Your task to perform on an android device: Go to Android settings Image 0: 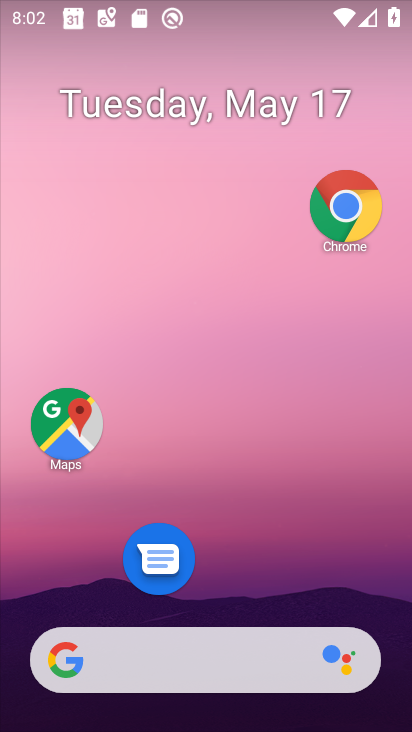
Step 0: drag from (282, 489) to (329, 120)
Your task to perform on an android device: Go to Android settings Image 1: 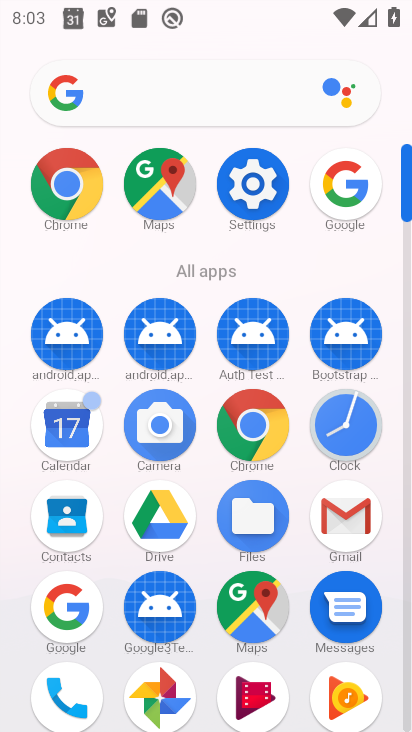
Step 1: click (269, 201)
Your task to perform on an android device: Go to Android settings Image 2: 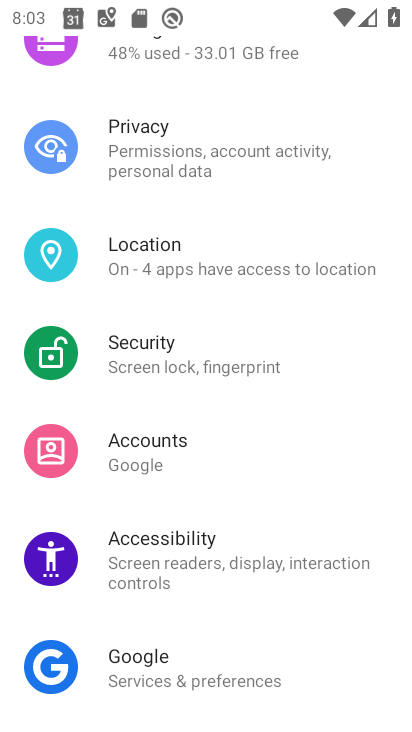
Step 2: drag from (303, 544) to (347, 165)
Your task to perform on an android device: Go to Android settings Image 3: 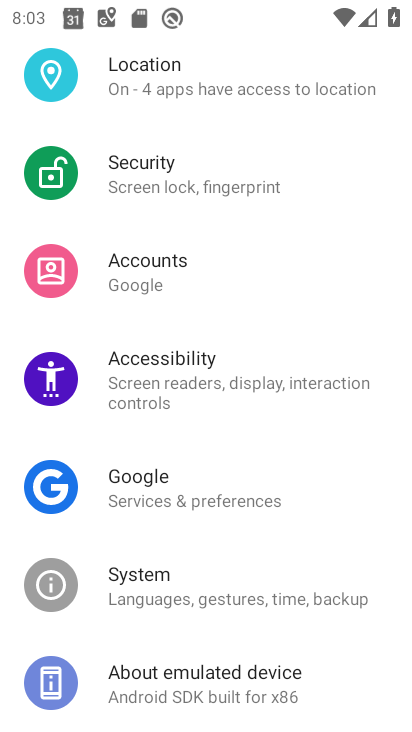
Step 3: drag from (292, 427) to (327, 44)
Your task to perform on an android device: Go to Android settings Image 4: 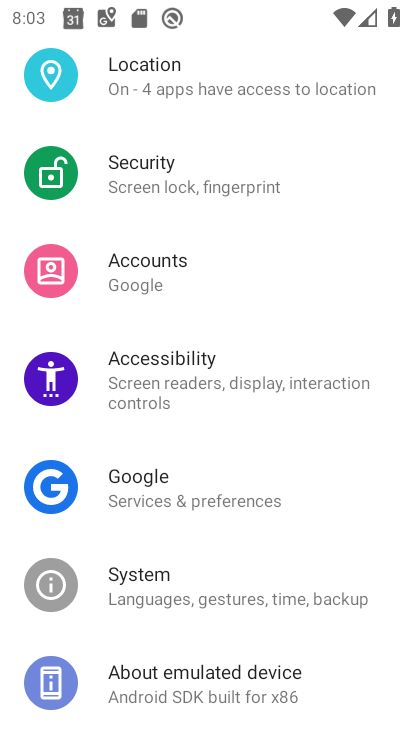
Step 4: click (244, 681)
Your task to perform on an android device: Go to Android settings Image 5: 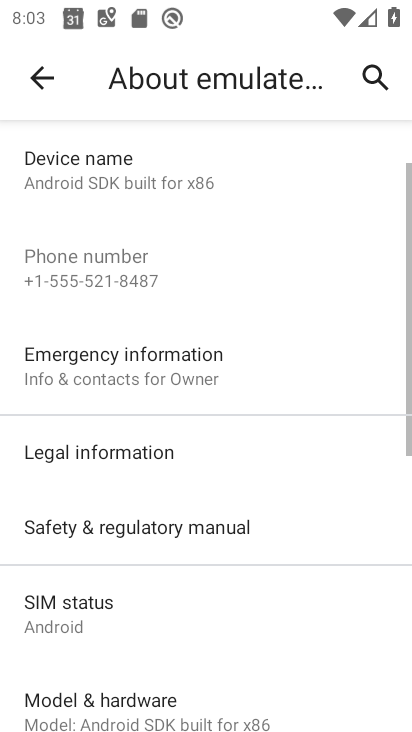
Step 5: drag from (252, 444) to (276, 307)
Your task to perform on an android device: Go to Android settings Image 6: 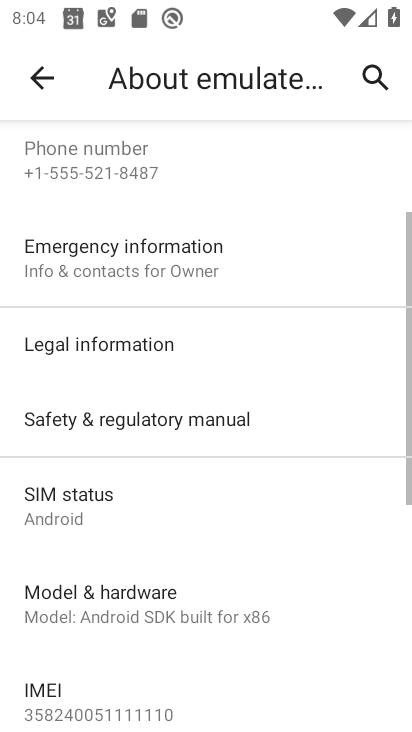
Step 6: drag from (178, 530) to (319, 16)
Your task to perform on an android device: Go to Android settings Image 7: 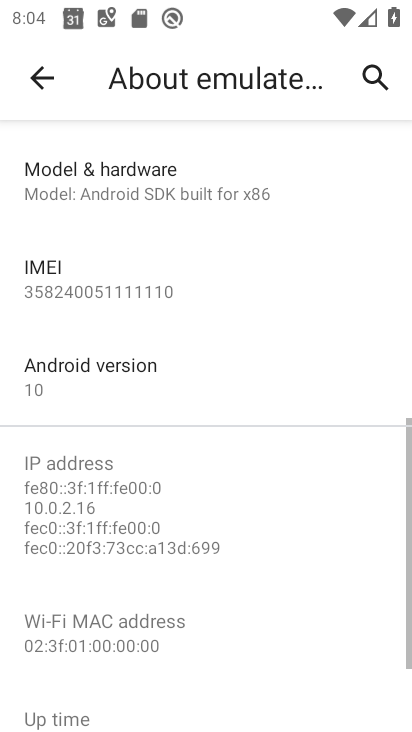
Step 7: drag from (147, 368) to (122, 319)
Your task to perform on an android device: Go to Android settings Image 8: 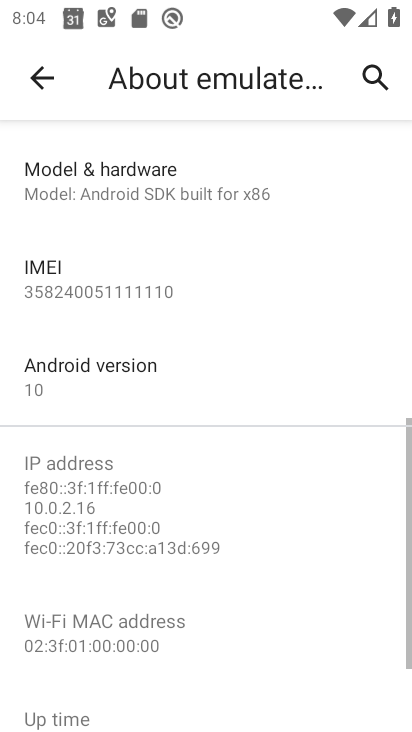
Step 8: click (228, 364)
Your task to perform on an android device: Go to Android settings Image 9: 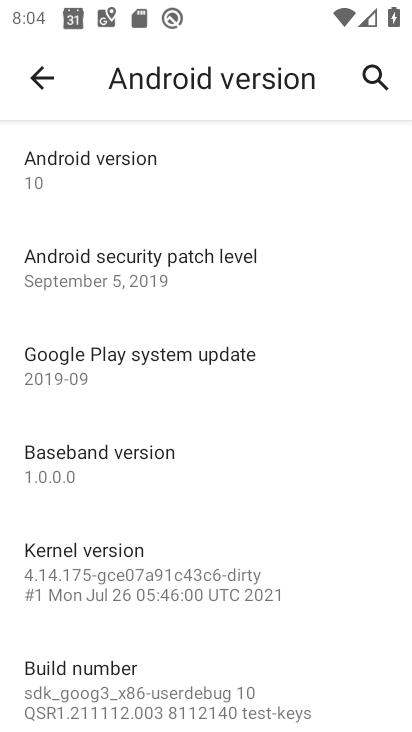
Step 9: task complete